Your task to perform on an android device: toggle pop-ups in chrome Image 0: 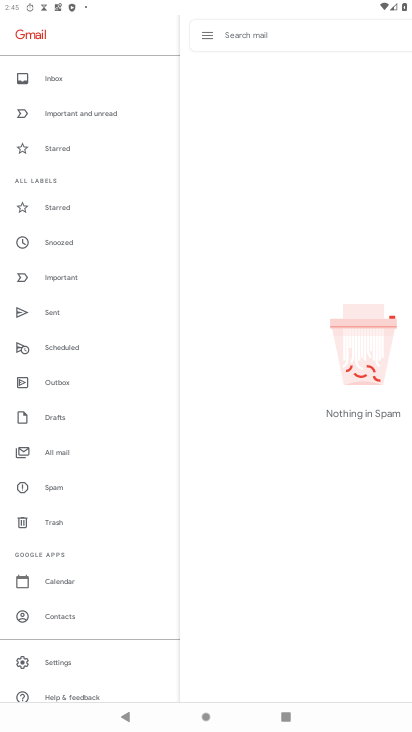
Step 0: press home button
Your task to perform on an android device: toggle pop-ups in chrome Image 1: 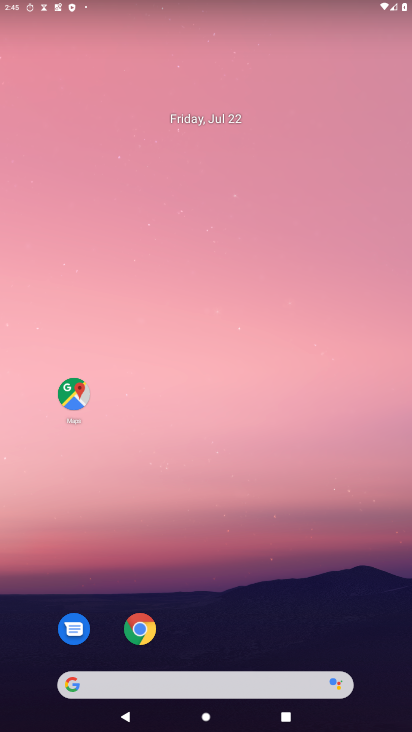
Step 1: drag from (215, 600) to (253, 17)
Your task to perform on an android device: toggle pop-ups in chrome Image 2: 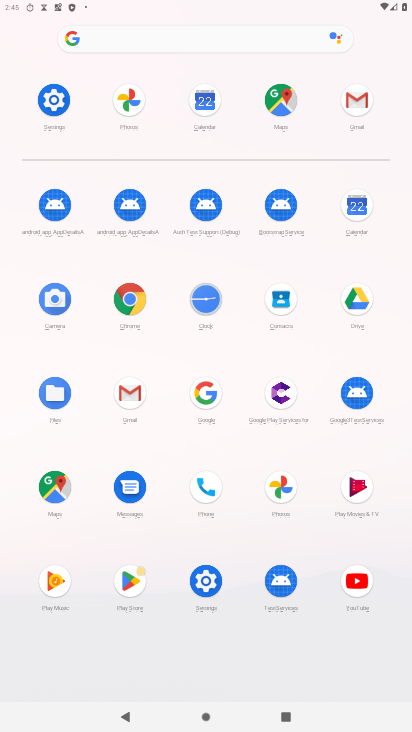
Step 2: click (125, 283)
Your task to perform on an android device: toggle pop-ups in chrome Image 3: 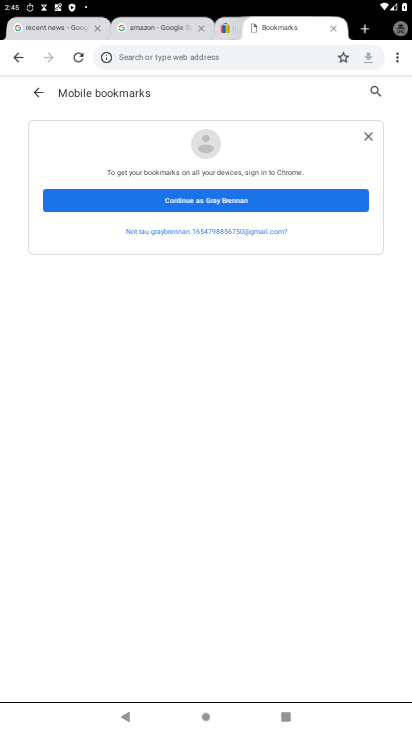
Step 3: drag from (401, 61) to (278, 267)
Your task to perform on an android device: toggle pop-ups in chrome Image 4: 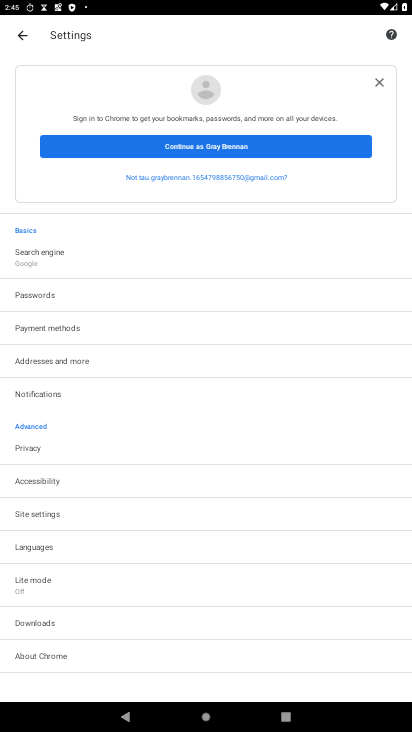
Step 4: click (72, 515)
Your task to perform on an android device: toggle pop-ups in chrome Image 5: 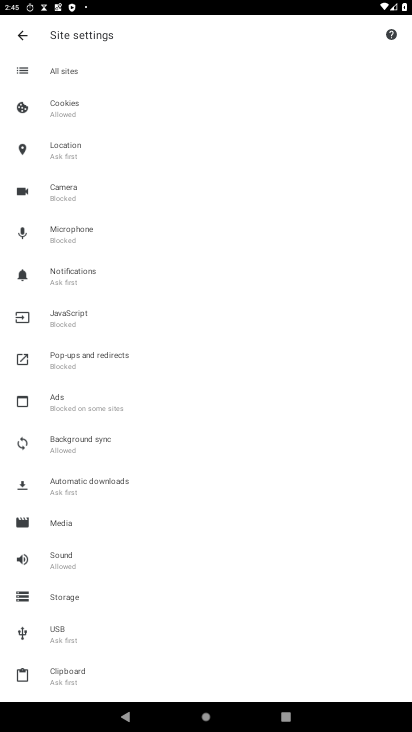
Step 5: click (101, 364)
Your task to perform on an android device: toggle pop-ups in chrome Image 6: 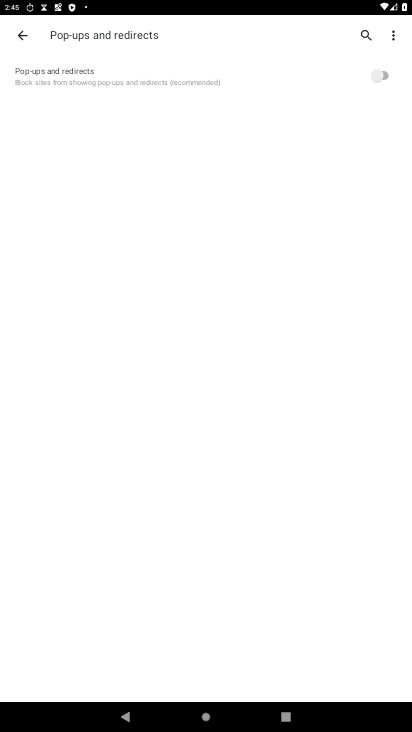
Step 6: click (384, 73)
Your task to perform on an android device: toggle pop-ups in chrome Image 7: 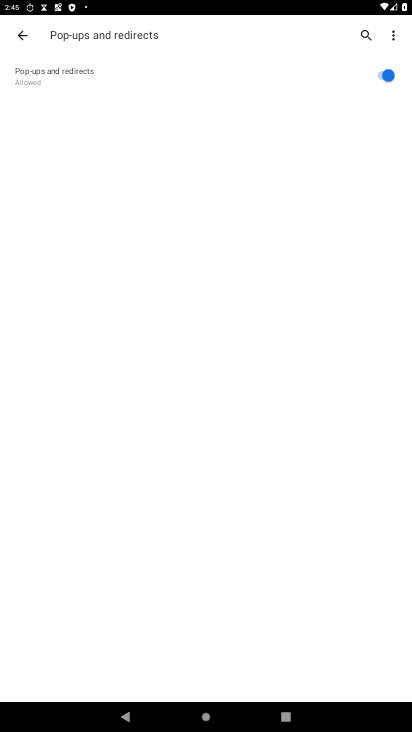
Step 7: task complete